Your task to perform on an android device: turn on wifi Image 0: 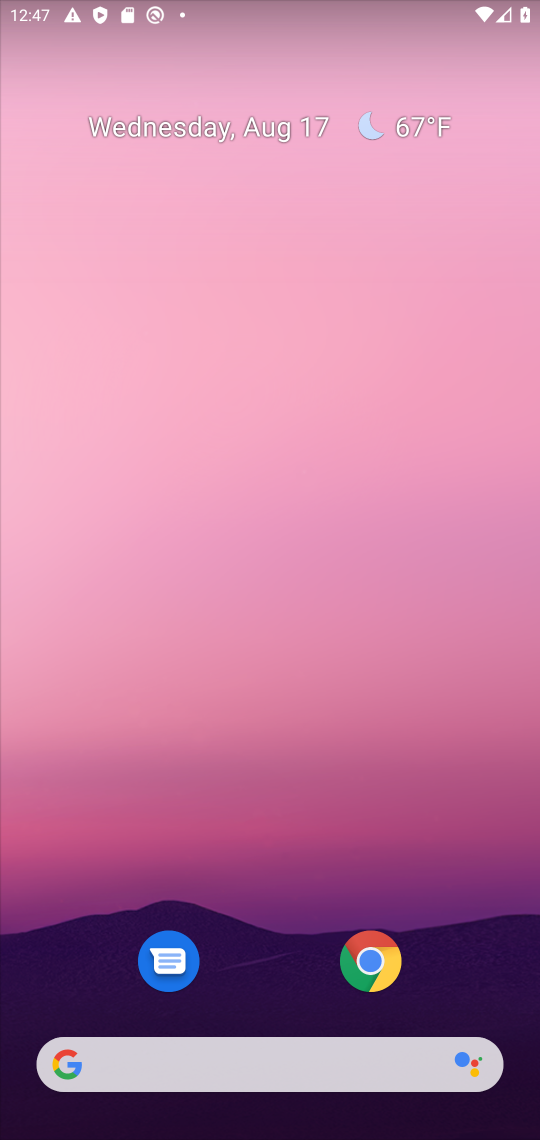
Step 0: drag from (326, 1059) to (273, 305)
Your task to perform on an android device: turn on wifi Image 1: 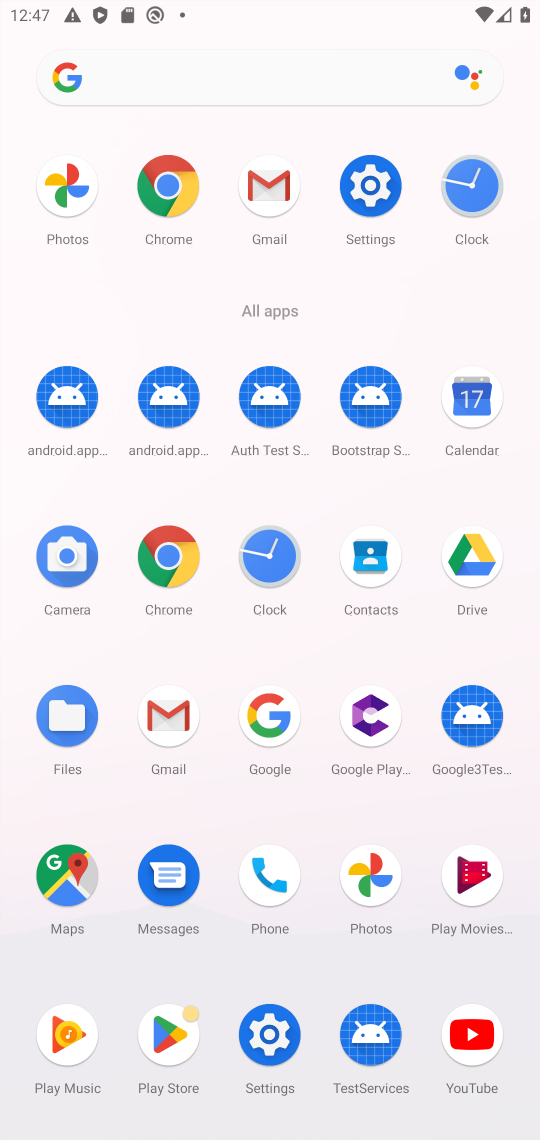
Step 1: click (370, 175)
Your task to perform on an android device: turn on wifi Image 2: 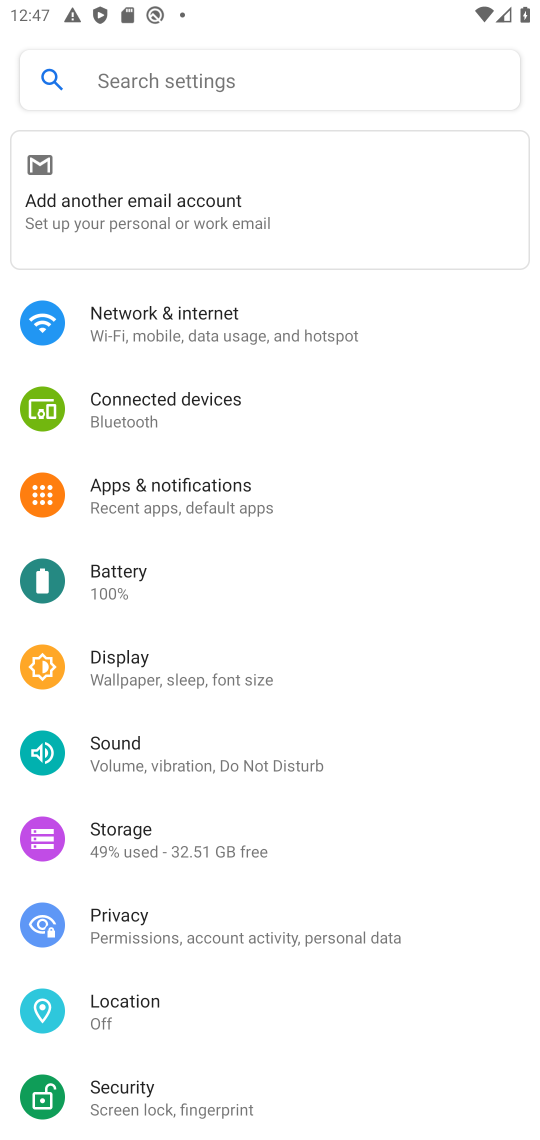
Step 2: click (275, 306)
Your task to perform on an android device: turn on wifi Image 3: 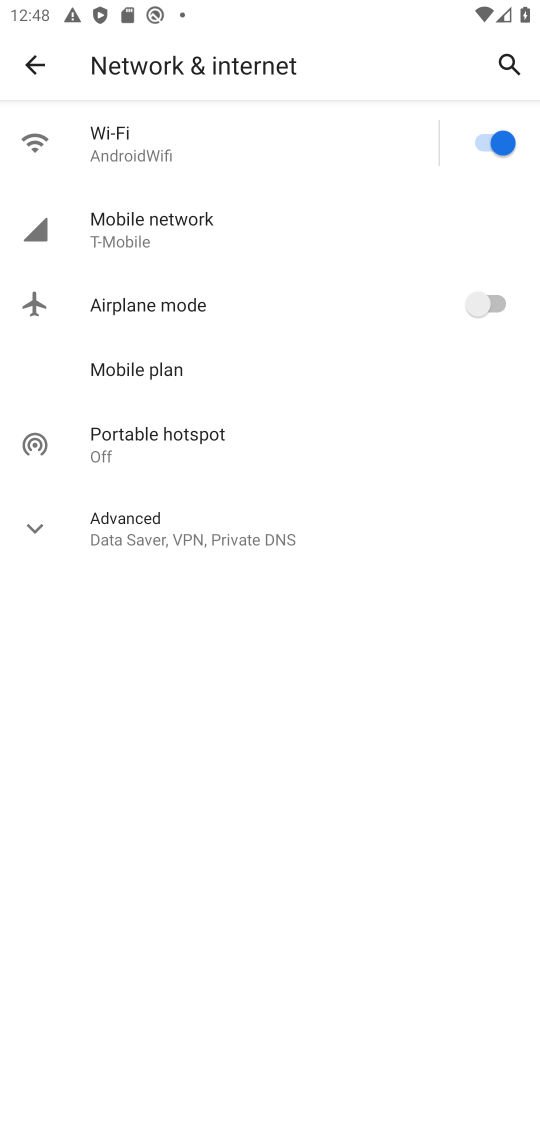
Step 3: task complete